Your task to perform on an android device: toggle wifi Image 0: 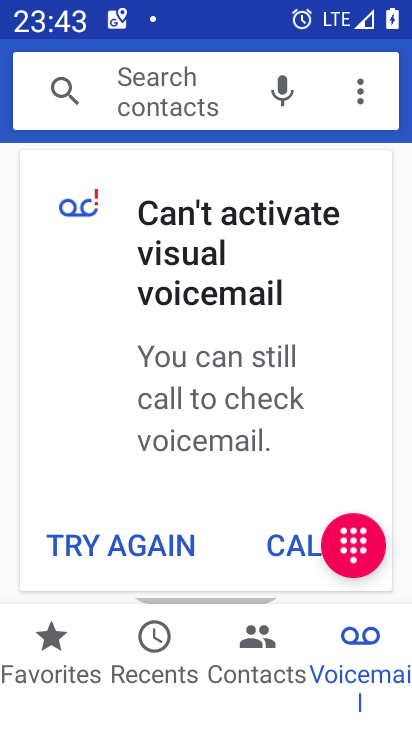
Step 0: drag from (185, 24) to (158, 674)
Your task to perform on an android device: toggle wifi Image 1: 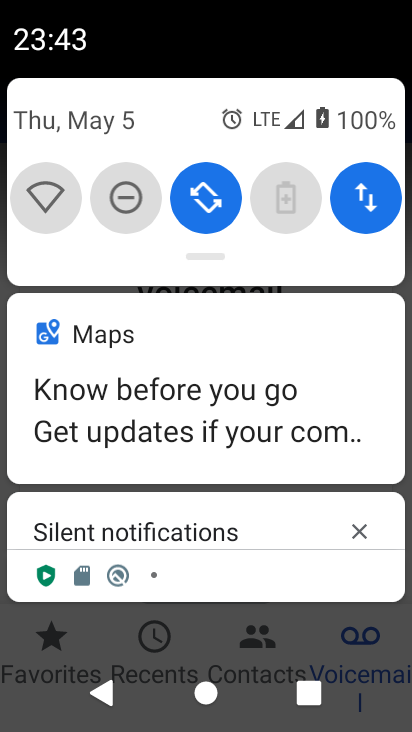
Step 1: click (51, 201)
Your task to perform on an android device: toggle wifi Image 2: 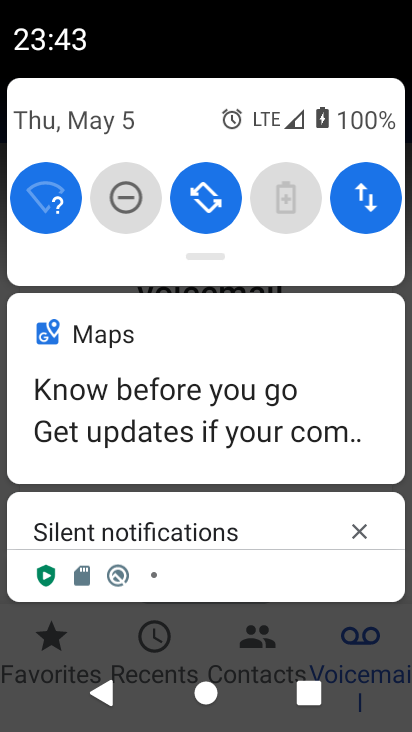
Step 2: click (51, 201)
Your task to perform on an android device: toggle wifi Image 3: 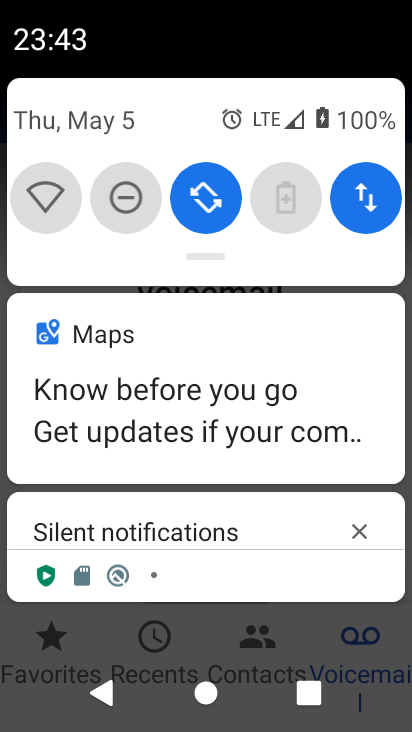
Step 3: click (51, 201)
Your task to perform on an android device: toggle wifi Image 4: 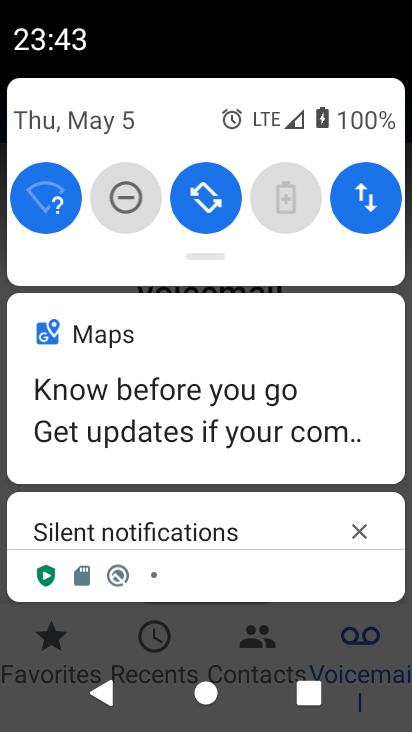
Step 4: task complete